Your task to perform on an android device: Open calendar and show me the fourth week of next month Image 0: 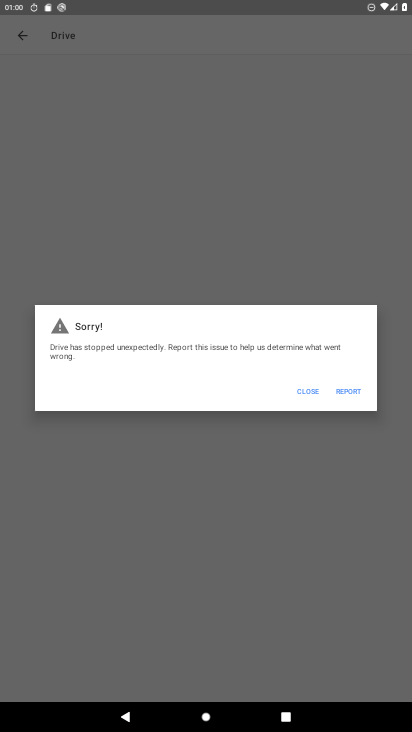
Step 0: press home button
Your task to perform on an android device: Open calendar and show me the fourth week of next month Image 1: 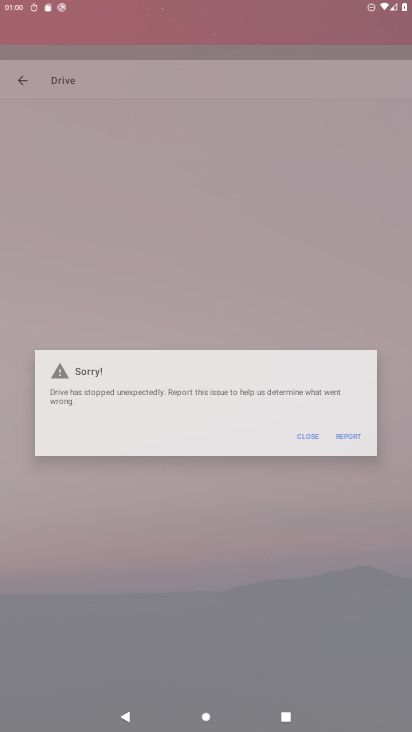
Step 1: drag from (203, 579) to (396, 565)
Your task to perform on an android device: Open calendar and show me the fourth week of next month Image 2: 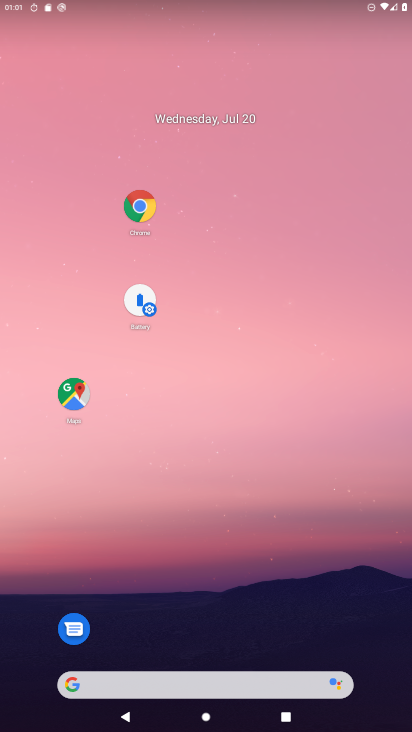
Step 2: drag from (164, 587) to (274, 89)
Your task to perform on an android device: Open calendar and show me the fourth week of next month Image 3: 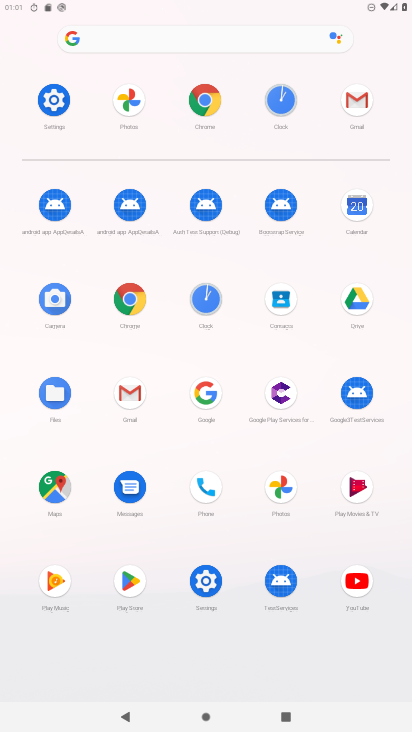
Step 3: click (349, 200)
Your task to perform on an android device: Open calendar and show me the fourth week of next month Image 4: 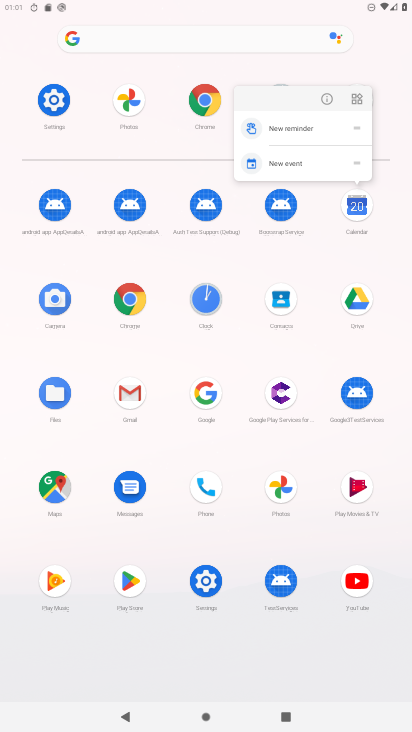
Step 4: click (323, 98)
Your task to perform on an android device: Open calendar and show me the fourth week of next month Image 5: 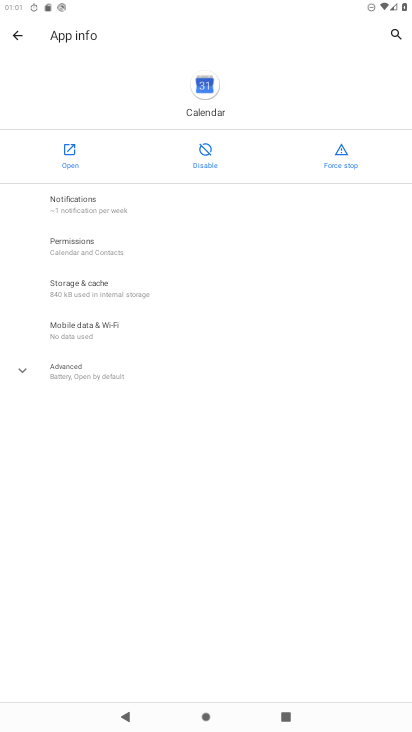
Step 5: click (59, 156)
Your task to perform on an android device: Open calendar and show me the fourth week of next month Image 6: 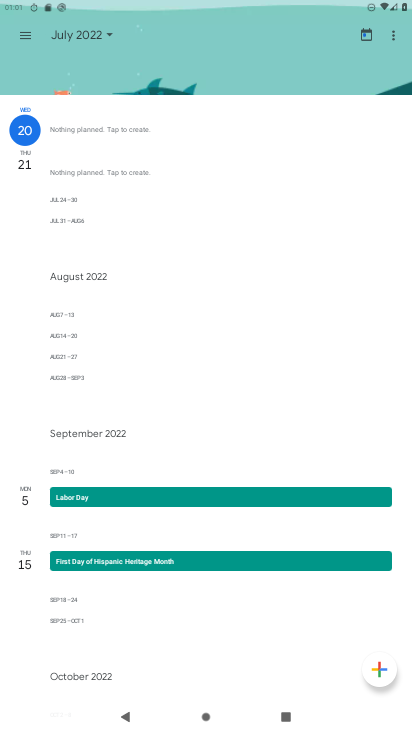
Step 6: click (98, 32)
Your task to perform on an android device: Open calendar and show me the fourth week of next month Image 7: 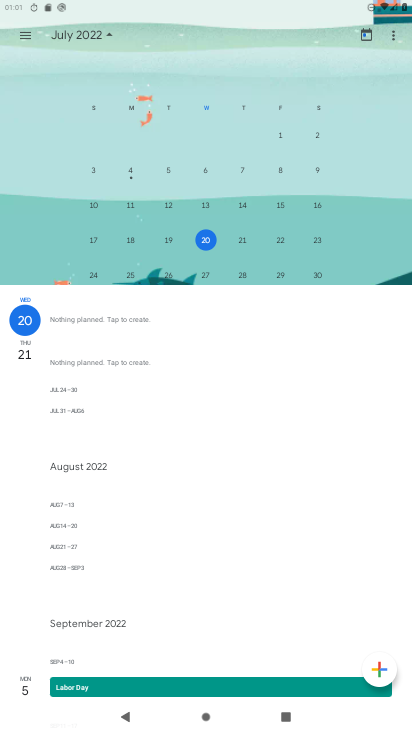
Step 7: drag from (295, 245) to (0, 231)
Your task to perform on an android device: Open calendar and show me the fourth week of next month Image 8: 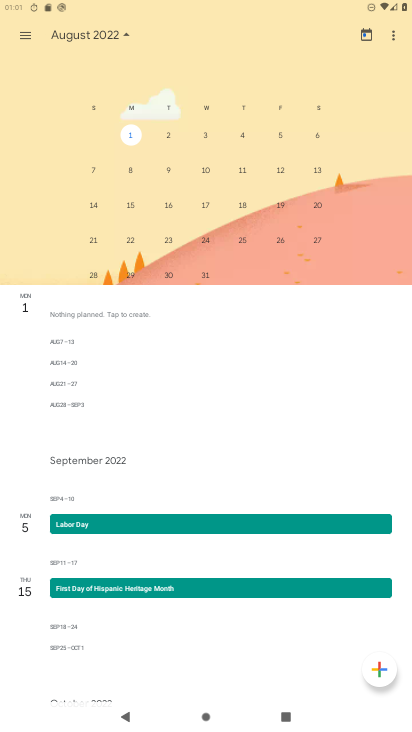
Step 8: click (251, 238)
Your task to perform on an android device: Open calendar and show me the fourth week of next month Image 9: 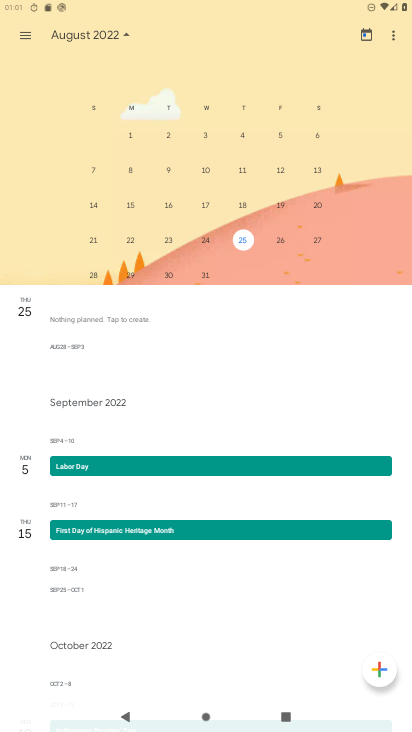
Step 9: task complete